Your task to perform on an android device: check google app version Image 0: 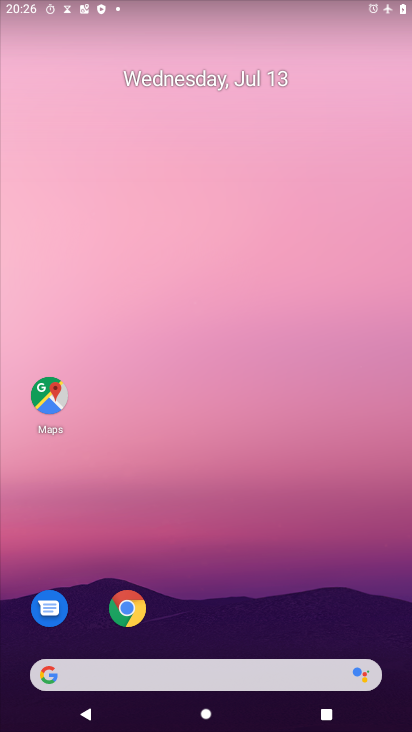
Step 0: drag from (198, 649) to (389, 412)
Your task to perform on an android device: check google app version Image 1: 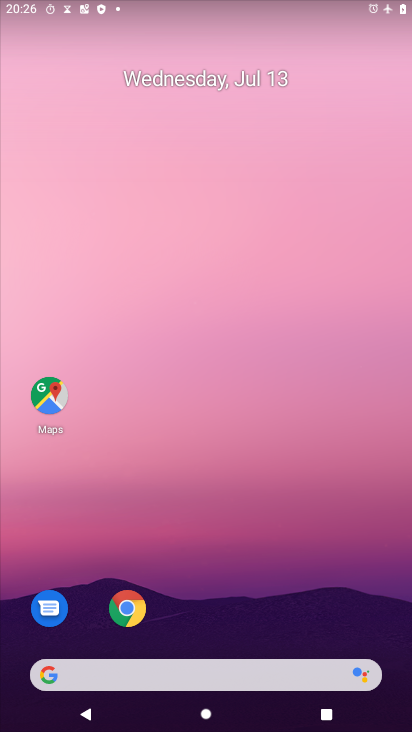
Step 1: drag from (195, 459) to (161, 27)
Your task to perform on an android device: check google app version Image 2: 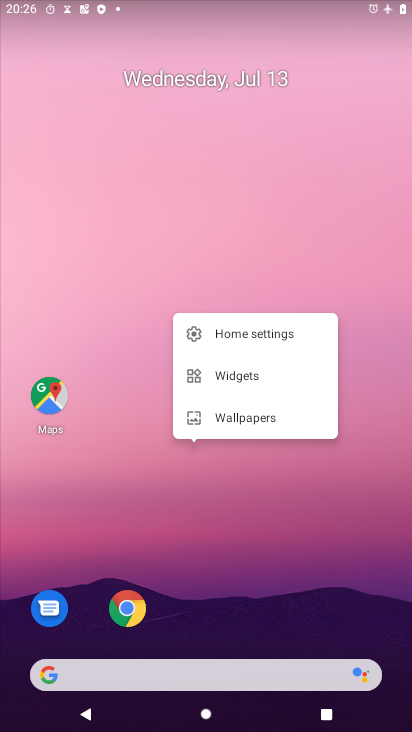
Step 2: drag from (195, 619) to (94, 46)
Your task to perform on an android device: check google app version Image 3: 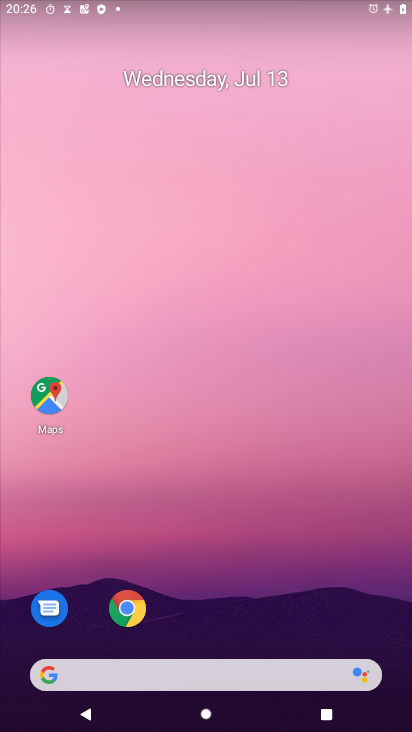
Step 3: drag from (236, 621) to (172, 48)
Your task to perform on an android device: check google app version Image 4: 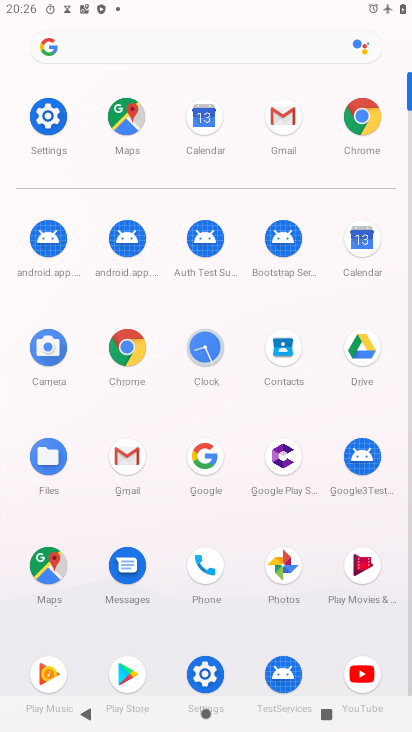
Step 4: drag from (211, 474) to (276, 336)
Your task to perform on an android device: check google app version Image 5: 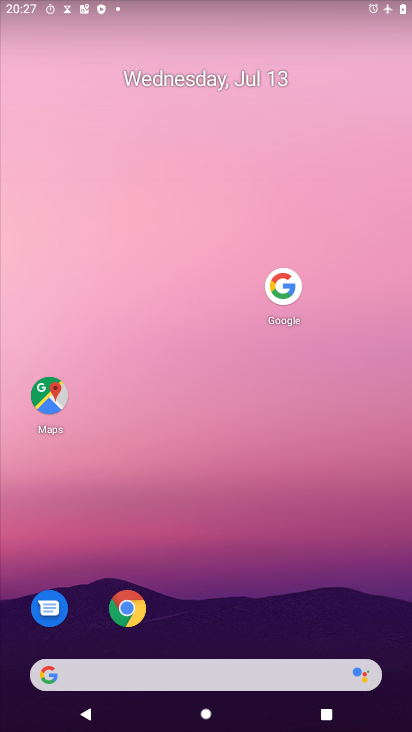
Step 5: click (271, 293)
Your task to perform on an android device: check google app version Image 6: 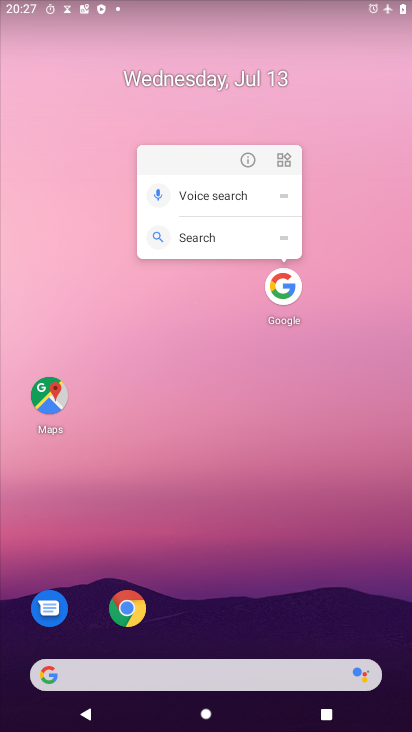
Step 6: click (246, 163)
Your task to perform on an android device: check google app version Image 7: 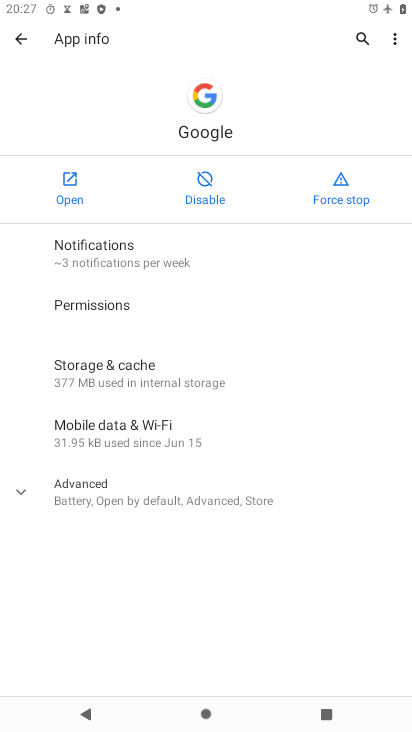
Step 7: drag from (218, 560) to (242, 398)
Your task to perform on an android device: check google app version Image 8: 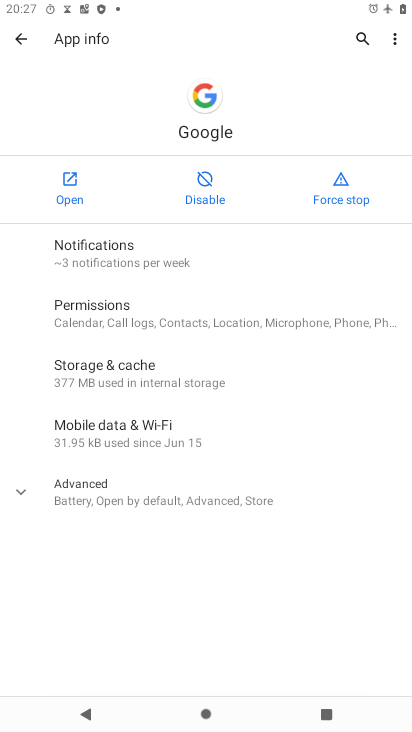
Step 8: click (203, 480)
Your task to perform on an android device: check google app version Image 9: 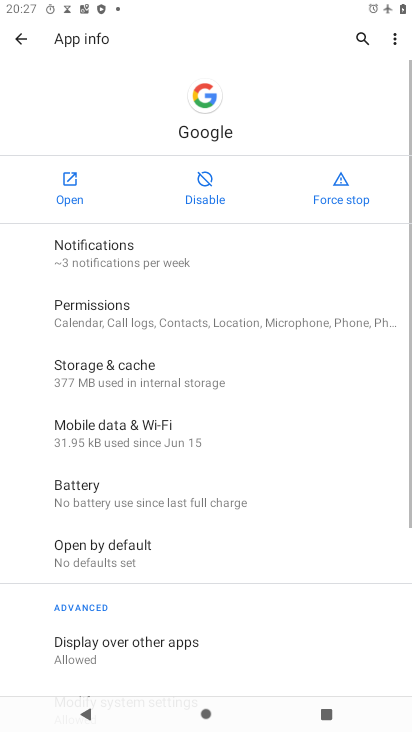
Step 9: drag from (203, 480) to (172, 2)
Your task to perform on an android device: check google app version Image 10: 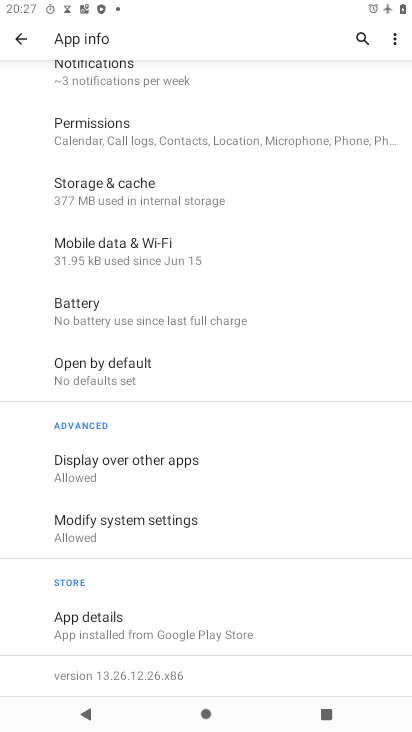
Step 10: click (146, 682)
Your task to perform on an android device: check google app version Image 11: 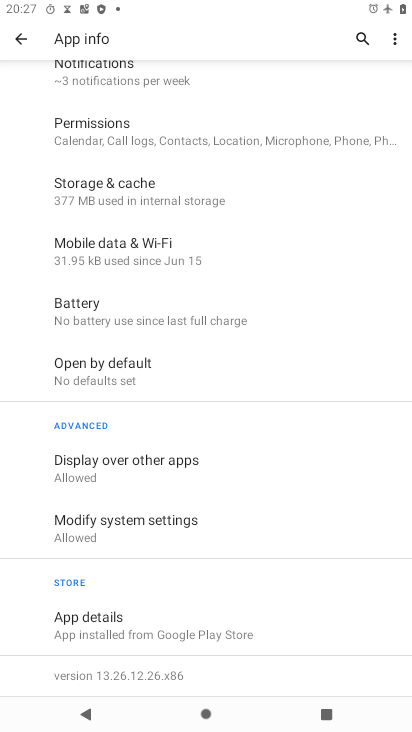
Step 11: task complete